Your task to perform on an android device: turn on the 12-hour format for clock Image 0: 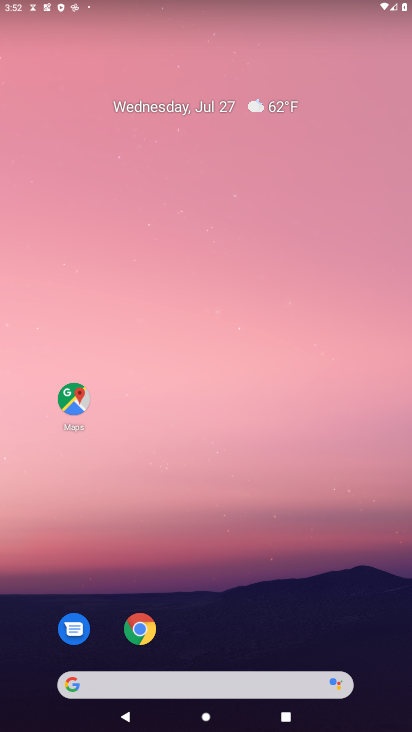
Step 0: drag from (196, 679) to (276, 14)
Your task to perform on an android device: turn on the 12-hour format for clock Image 1: 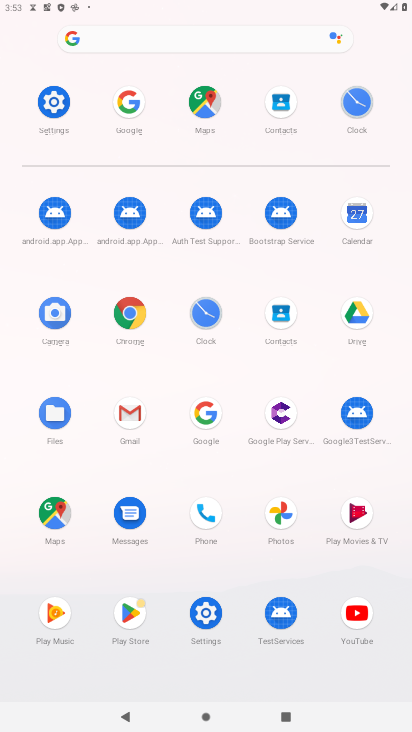
Step 1: click (205, 314)
Your task to perform on an android device: turn on the 12-hour format for clock Image 2: 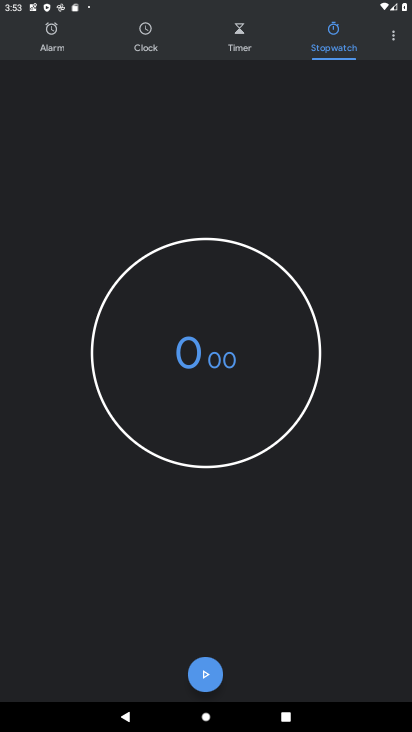
Step 2: click (394, 35)
Your task to perform on an android device: turn on the 12-hour format for clock Image 3: 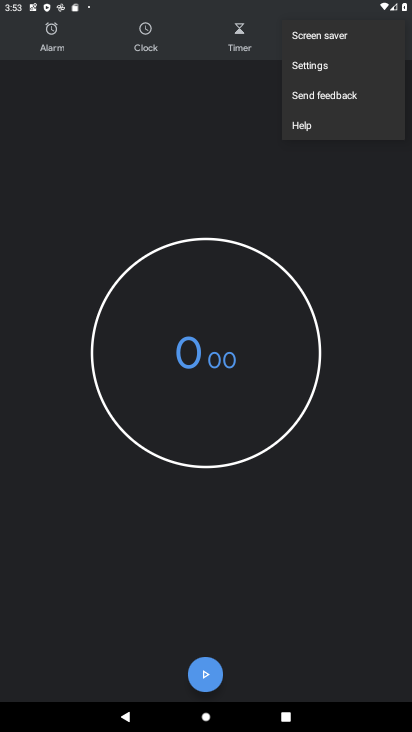
Step 3: click (318, 66)
Your task to perform on an android device: turn on the 12-hour format for clock Image 4: 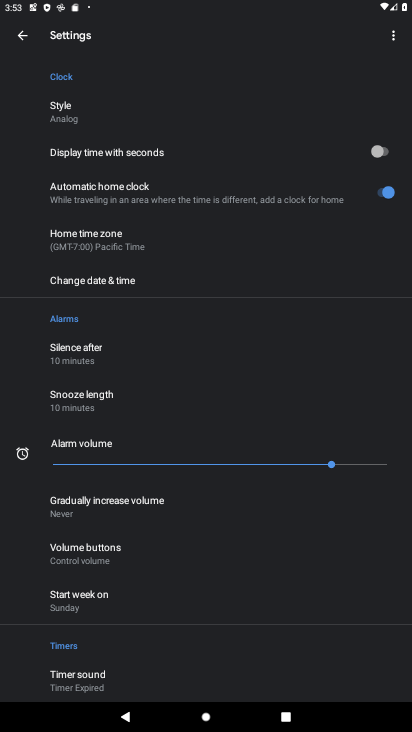
Step 4: click (81, 284)
Your task to perform on an android device: turn on the 12-hour format for clock Image 5: 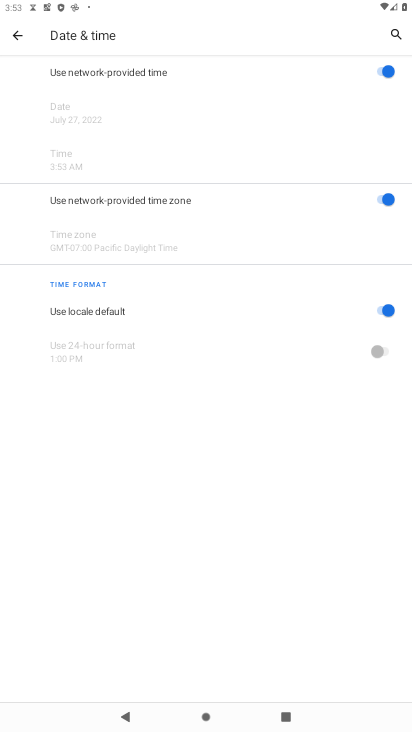
Step 5: task complete